Your task to perform on an android device: turn on airplane mode Image 0: 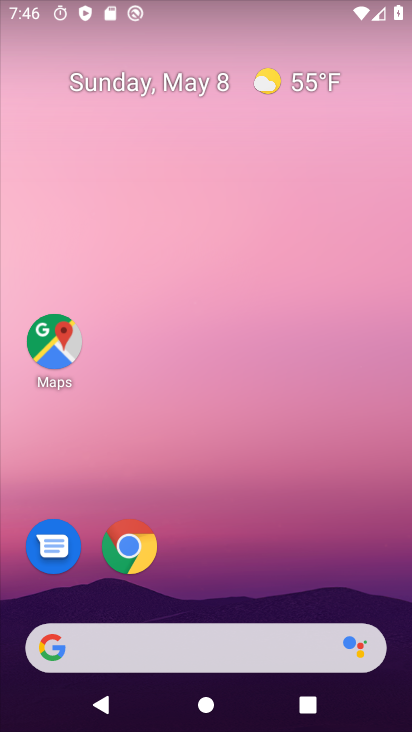
Step 0: drag from (238, 554) to (288, 83)
Your task to perform on an android device: turn on airplane mode Image 1: 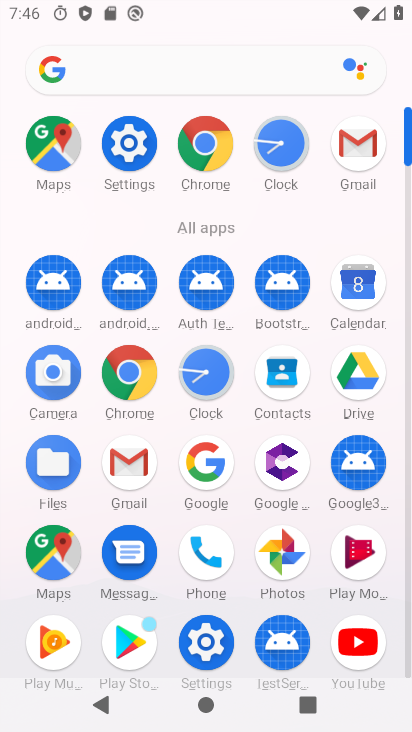
Step 1: click (129, 137)
Your task to perform on an android device: turn on airplane mode Image 2: 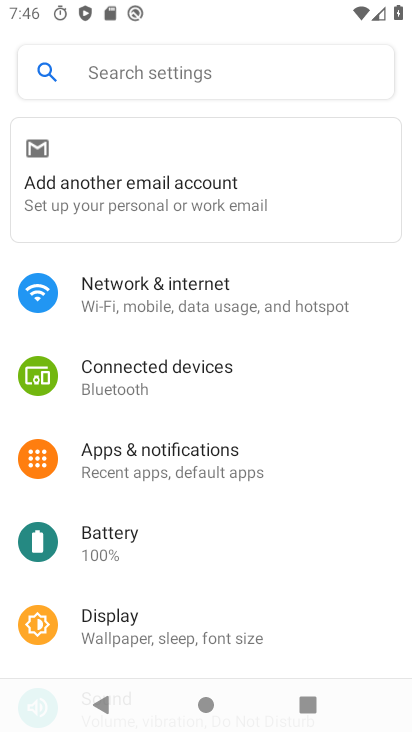
Step 2: click (153, 285)
Your task to perform on an android device: turn on airplane mode Image 3: 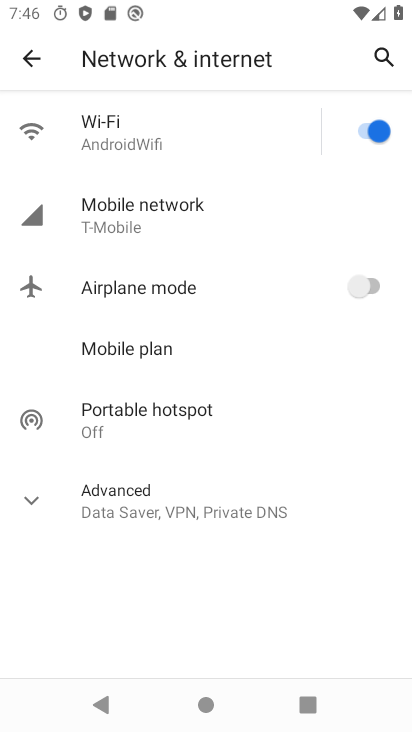
Step 3: click (153, 285)
Your task to perform on an android device: turn on airplane mode Image 4: 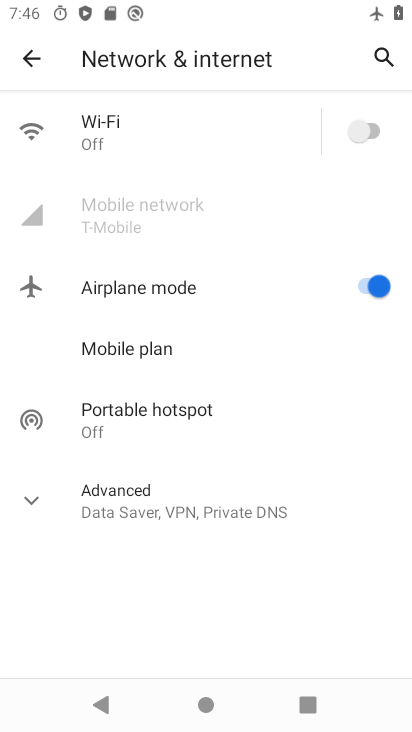
Step 4: task complete